Your task to perform on an android device: Add apple airpods to the cart on ebay.com, then select checkout. Image 0: 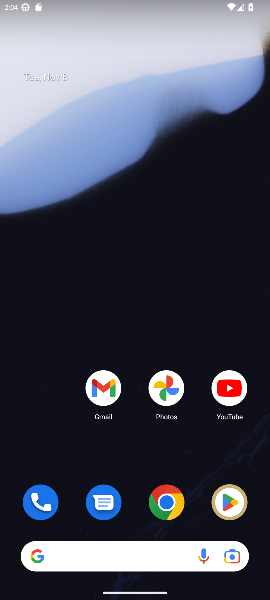
Step 0: drag from (68, 537) to (82, 142)
Your task to perform on an android device: Add apple airpods to the cart on ebay.com, then select checkout. Image 1: 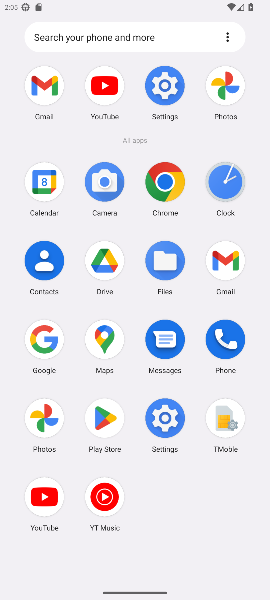
Step 1: click (30, 338)
Your task to perform on an android device: Add apple airpods to the cart on ebay.com, then select checkout. Image 2: 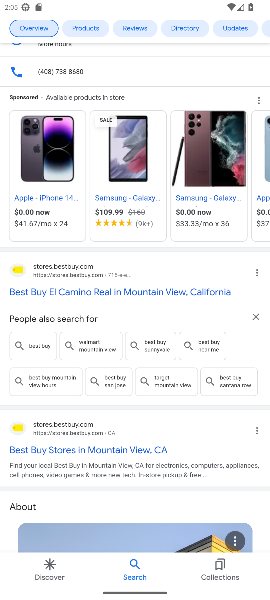
Step 2: drag from (162, 110) to (149, 543)
Your task to perform on an android device: Add apple airpods to the cart on ebay.com, then select checkout. Image 3: 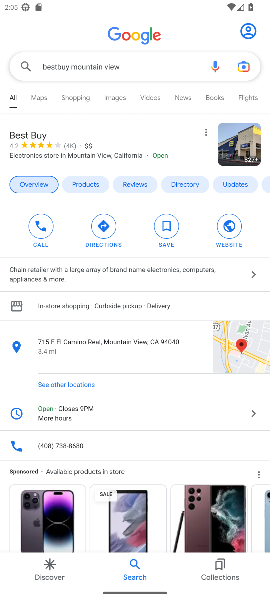
Step 3: drag from (131, 94) to (120, 467)
Your task to perform on an android device: Add apple airpods to the cart on ebay.com, then select checkout. Image 4: 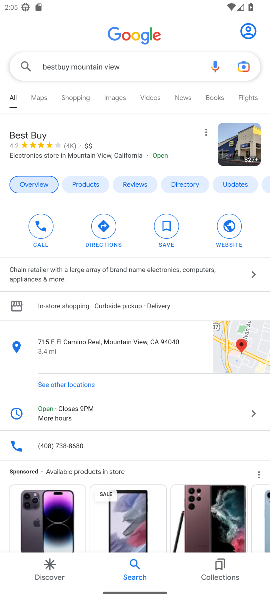
Step 4: click (146, 75)
Your task to perform on an android device: Add apple airpods to the cart on ebay.com, then select checkout. Image 5: 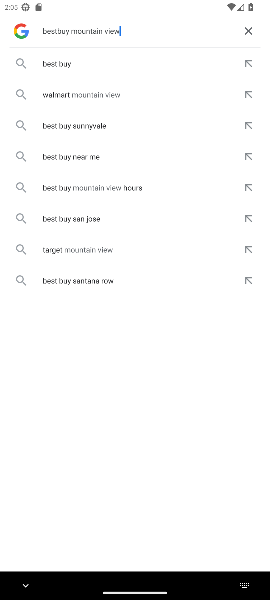
Step 5: click (246, 33)
Your task to perform on an android device: Add apple airpods to the cart on ebay.com, then select checkout. Image 6: 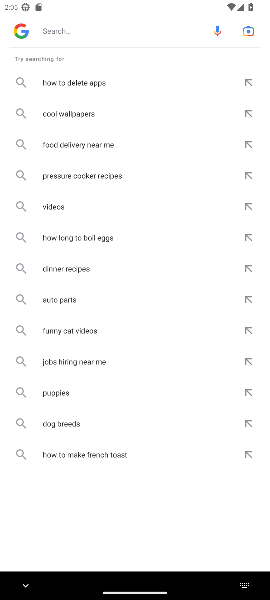
Step 6: click (99, 33)
Your task to perform on an android device: Add apple airpods to the cart on ebay.com, then select checkout. Image 7: 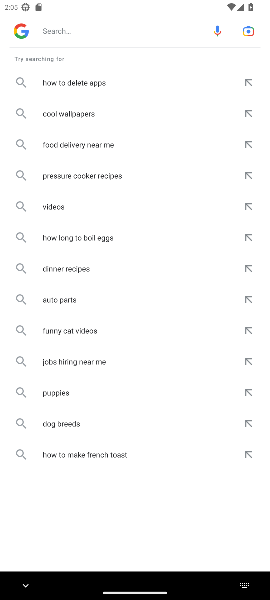
Step 7: type "ebay "
Your task to perform on an android device: Add apple airpods to the cart on ebay.com, then select checkout. Image 8: 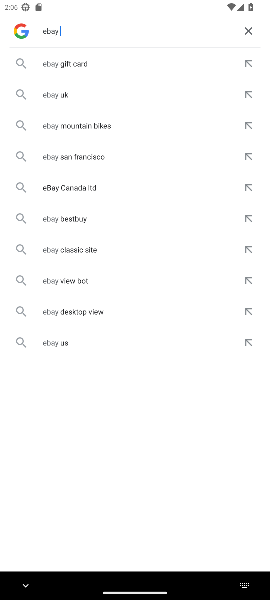
Step 8: click (68, 96)
Your task to perform on an android device: Add apple airpods to the cart on ebay.com, then select checkout. Image 9: 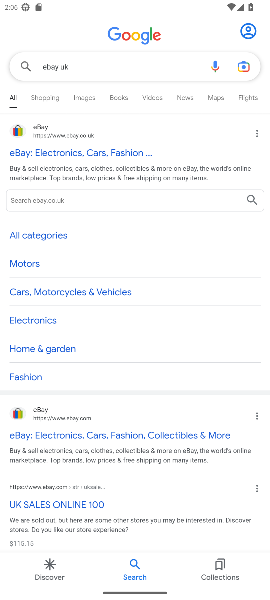
Step 9: click (17, 129)
Your task to perform on an android device: Add apple airpods to the cart on ebay.com, then select checkout. Image 10: 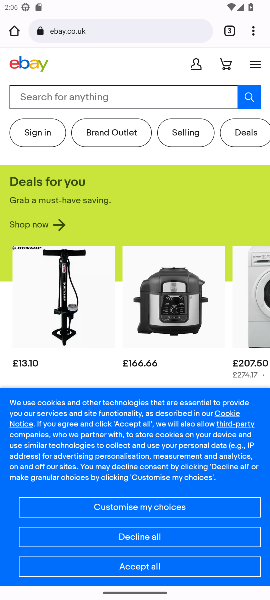
Step 10: click (158, 570)
Your task to perform on an android device: Add apple airpods to the cart on ebay.com, then select checkout. Image 11: 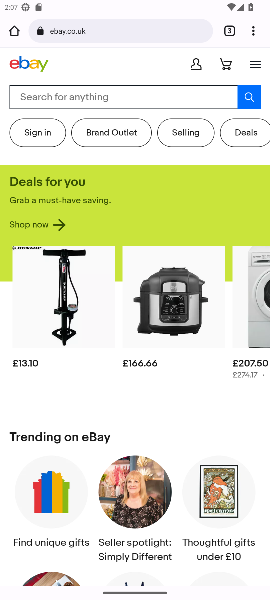
Step 11: click (141, 84)
Your task to perform on an android device: Add apple airpods to the cart on ebay.com, then select checkout. Image 12: 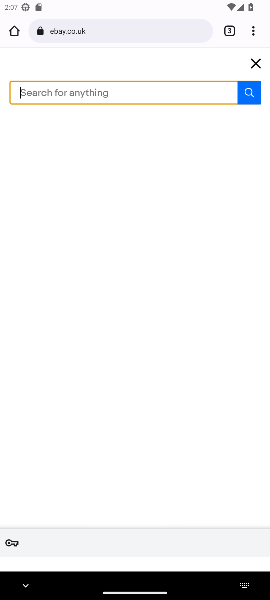
Step 12: type "airpods "
Your task to perform on an android device: Add apple airpods to the cart on ebay.com, then select checkout. Image 13: 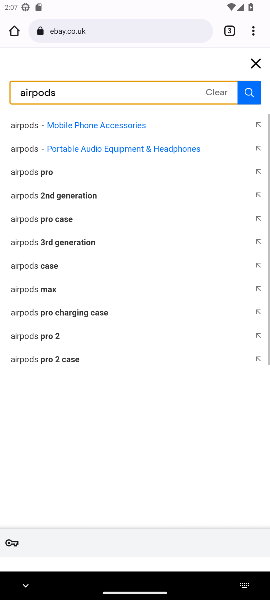
Step 13: click (45, 129)
Your task to perform on an android device: Add apple airpods to the cart on ebay.com, then select checkout. Image 14: 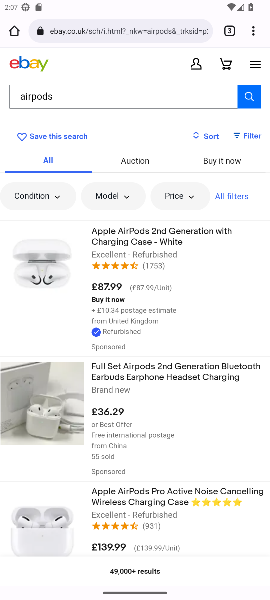
Step 14: click (150, 234)
Your task to perform on an android device: Add apple airpods to the cart on ebay.com, then select checkout. Image 15: 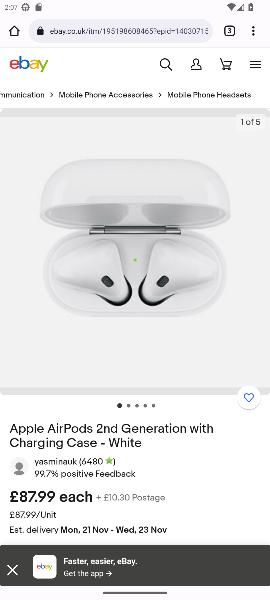
Step 15: click (7, 572)
Your task to perform on an android device: Add apple airpods to the cart on ebay.com, then select checkout. Image 16: 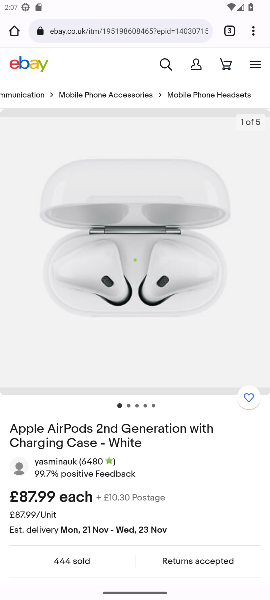
Step 16: drag from (172, 502) to (181, 156)
Your task to perform on an android device: Add apple airpods to the cart on ebay.com, then select checkout. Image 17: 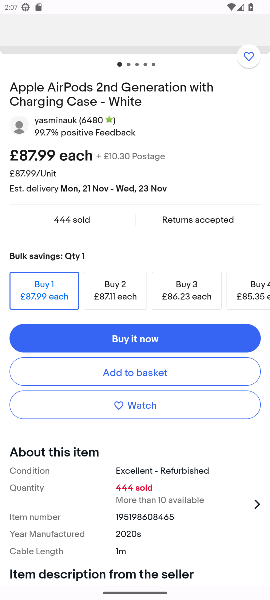
Step 17: click (148, 373)
Your task to perform on an android device: Add apple airpods to the cart on ebay.com, then select checkout. Image 18: 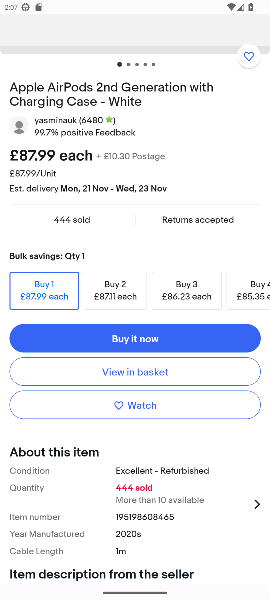
Step 18: task complete